Your task to perform on an android device: Toggle the flashlight Image 0: 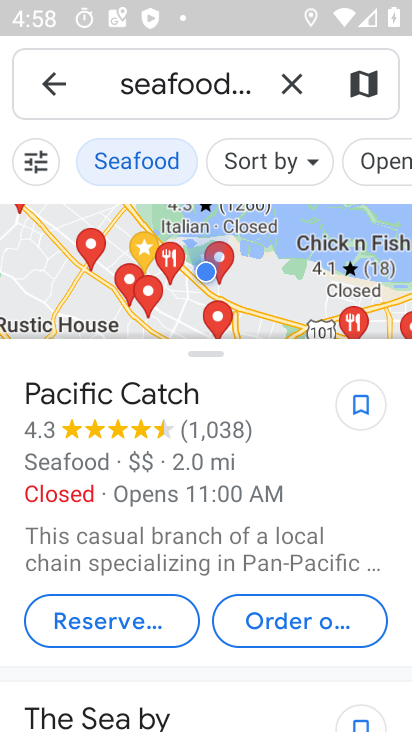
Step 0: press home button
Your task to perform on an android device: Toggle the flashlight Image 1: 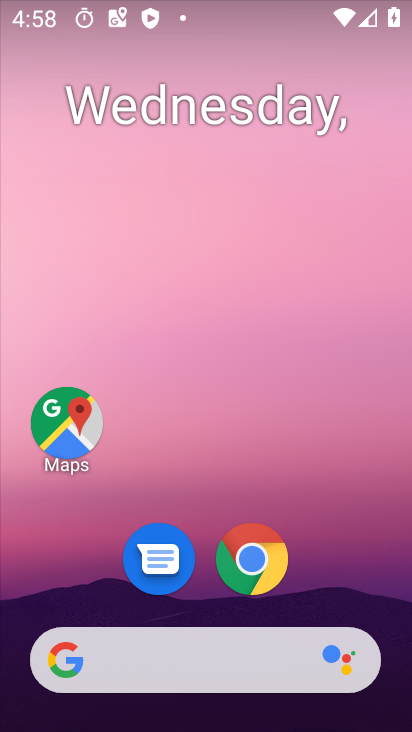
Step 1: task complete